Your task to perform on an android device: visit the assistant section in the google photos Image 0: 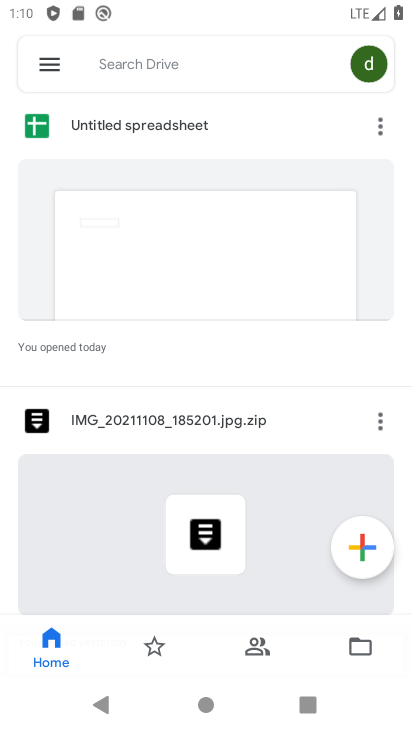
Step 0: press home button
Your task to perform on an android device: visit the assistant section in the google photos Image 1: 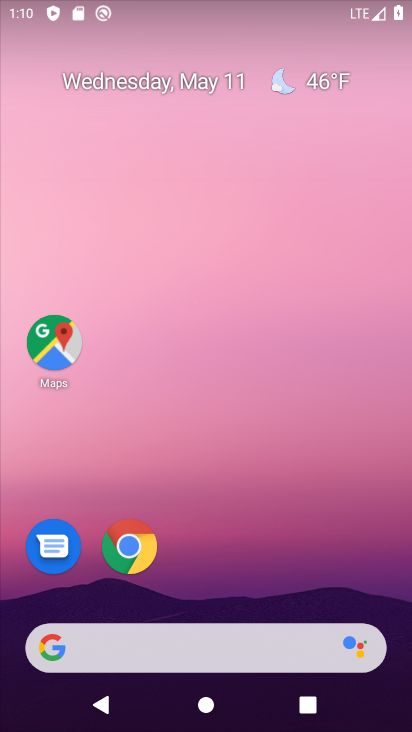
Step 1: drag from (268, 684) to (253, 240)
Your task to perform on an android device: visit the assistant section in the google photos Image 2: 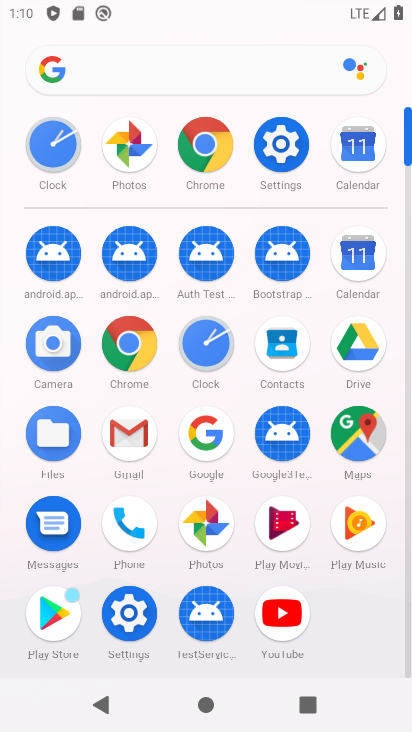
Step 2: click (126, 131)
Your task to perform on an android device: visit the assistant section in the google photos Image 3: 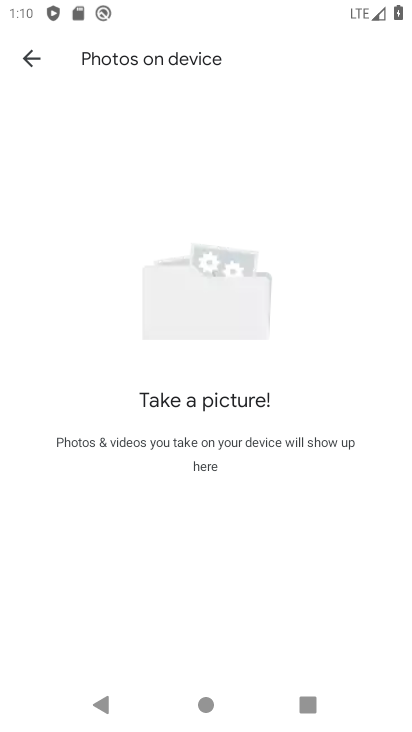
Step 3: click (14, 46)
Your task to perform on an android device: visit the assistant section in the google photos Image 4: 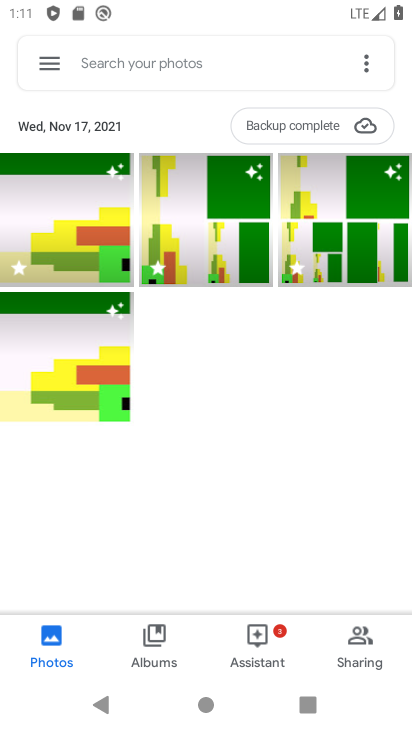
Step 4: click (243, 637)
Your task to perform on an android device: visit the assistant section in the google photos Image 5: 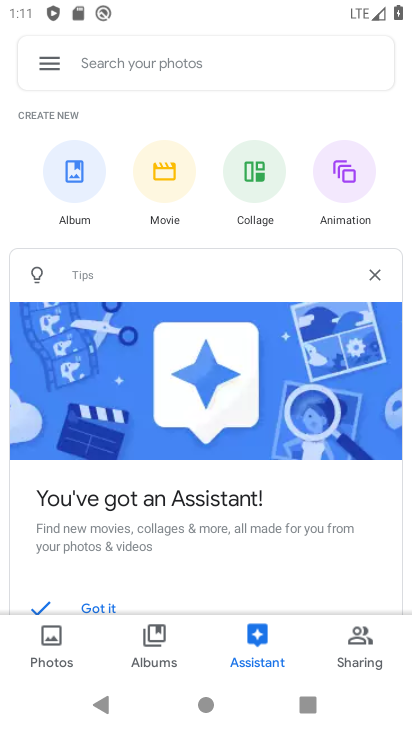
Step 5: task complete